Your task to perform on an android device: Open Maps and search for coffee Image 0: 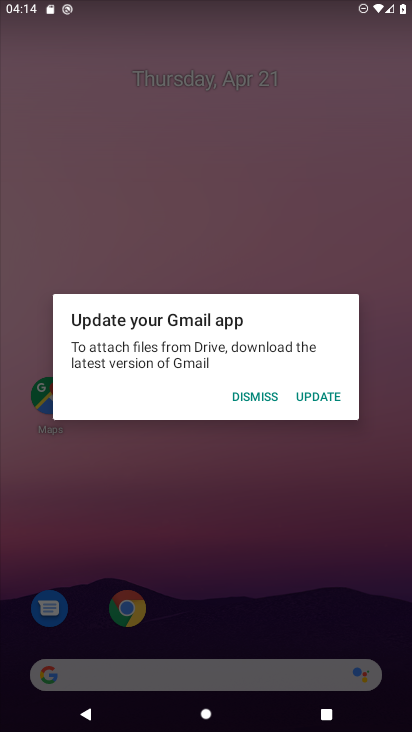
Step 0: press home button
Your task to perform on an android device: Open Maps and search for coffee Image 1: 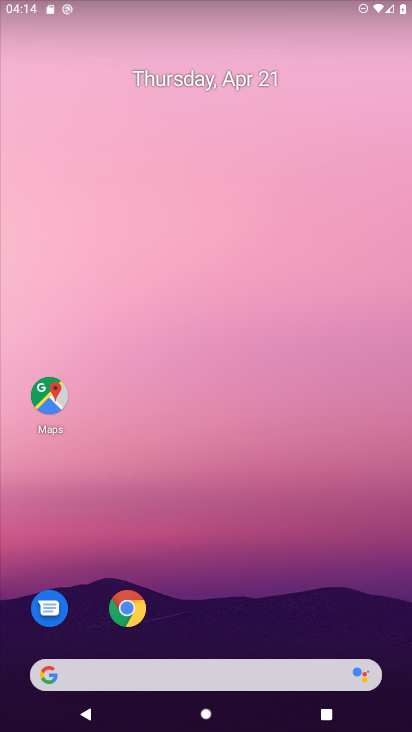
Step 1: drag from (211, 635) to (242, 276)
Your task to perform on an android device: Open Maps and search for coffee Image 2: 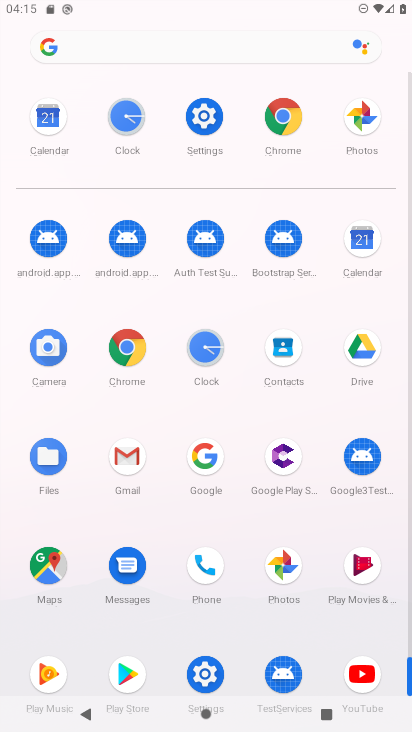
Step 2: click (47, 557)
Your task to perform on an android device: Open Maps and search for coffee Image 3: 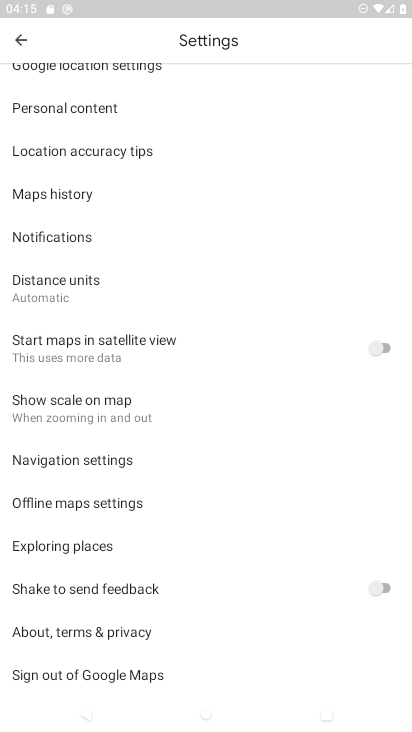
Step 3: click (27, 36)
Your task to perform on an android device: Open Maps and search for coffee Image 4: 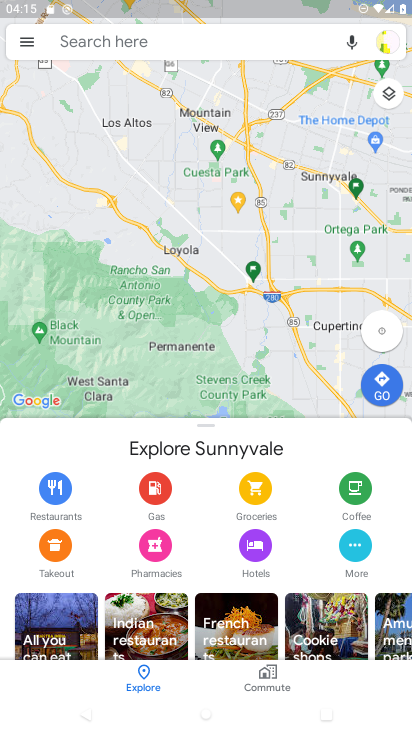
Step 4: click (187, 34)
Your task to perform on an android device: Open Maps and search for coffee Image 5: 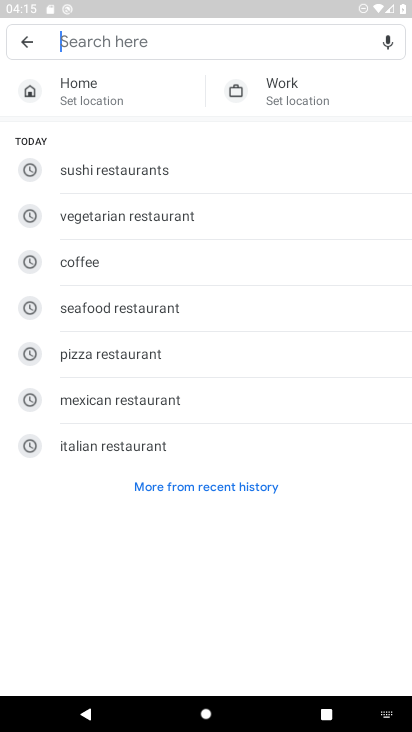
Step 5: type "coffee"
Your task to perform on an android device: Open Maps and search for coffee Image 6: 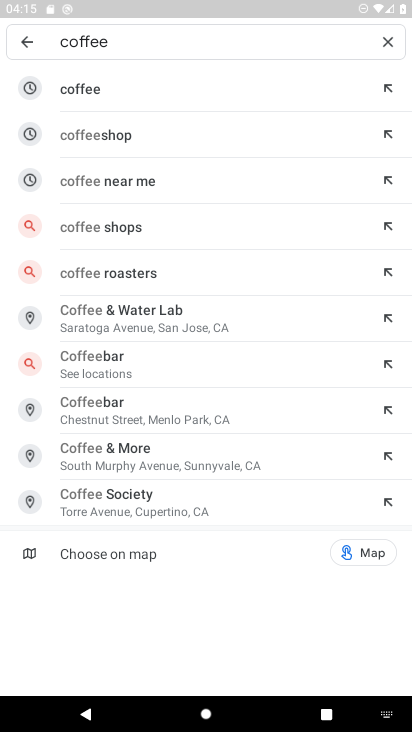
Step 6: click (175, 96)
Your task to perform on an android device: Open Maps and search for coffee Image 7: 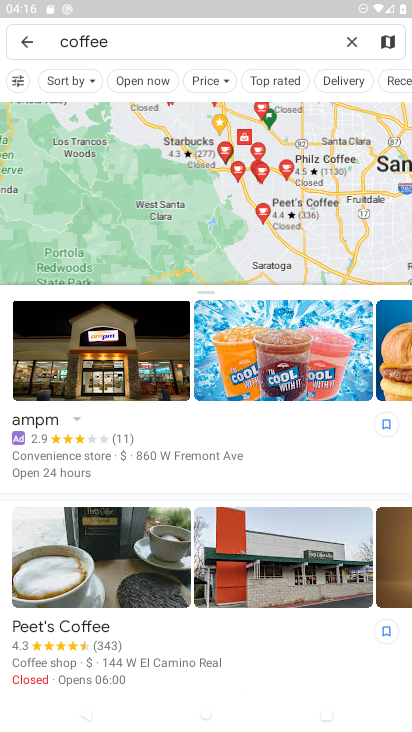
Step 7: task complete